Your task to perform on an android device: Go to Yahoo.com Image 0: 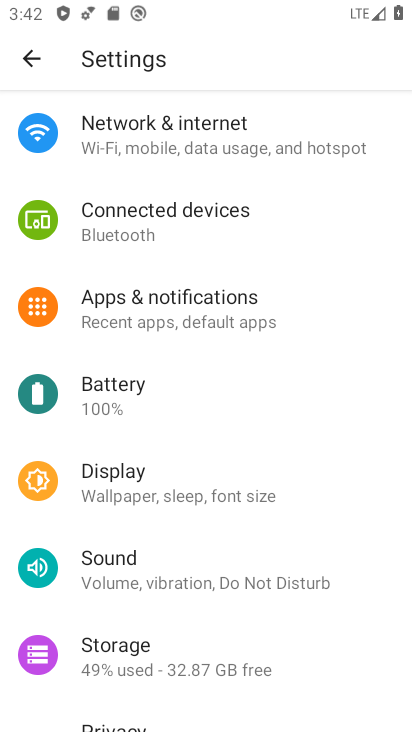
Step 0: press home button
Your task to perform on an android device: Go to Yahoo.com Image 1: 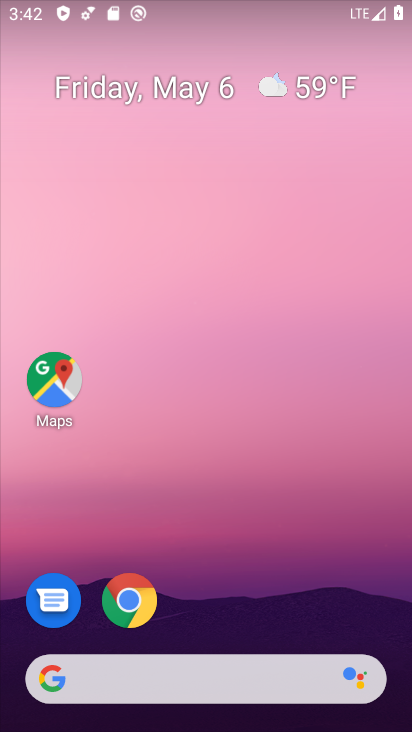
Step 1: press home button
Your task to perform on an android device: Go to Yahoo.com Image 2: 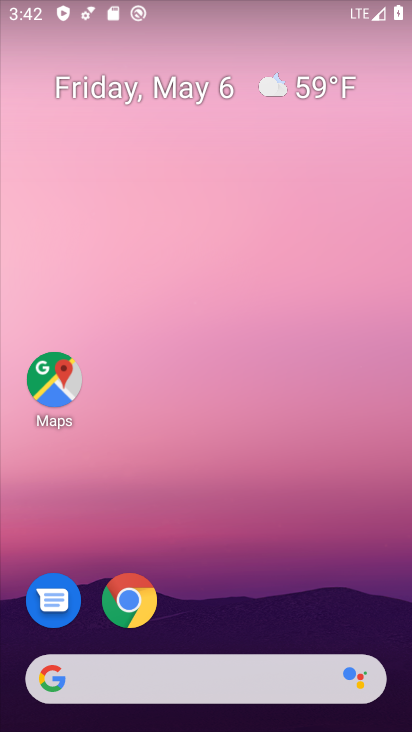
Step 2: click (146, 595)
Your task to perform on an android device: Go to Yahoo.com Image 3: 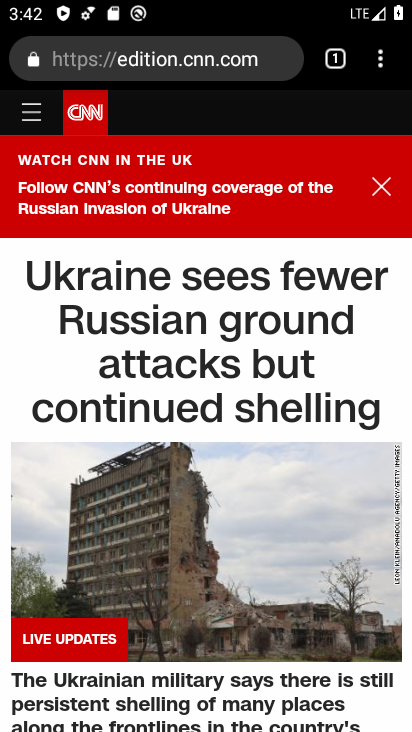
Step 3: click (385, 57)
Your task to perform on an android device: Go to Yahoo.com Image 4: 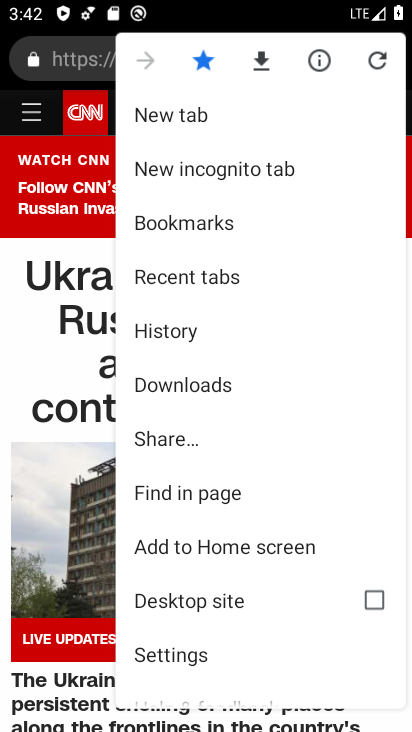
Step 4: click (172, 116)
Your task to perform on an android device: Go to Yahoo.com Image 5: 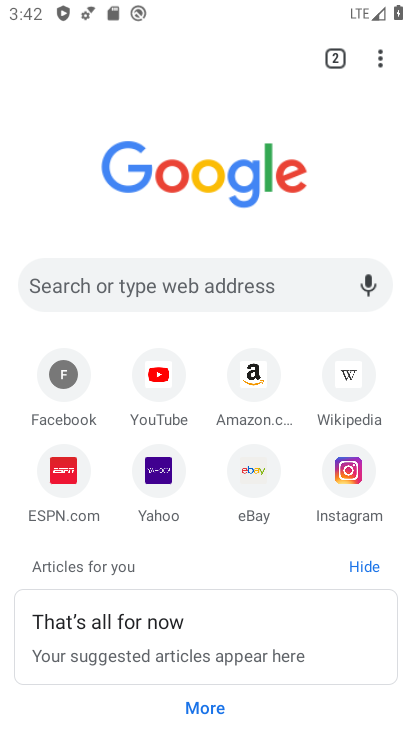
Step 5: click (144, 469)
Your task to perform on an android device: Go to Yahoo.com Image 6: 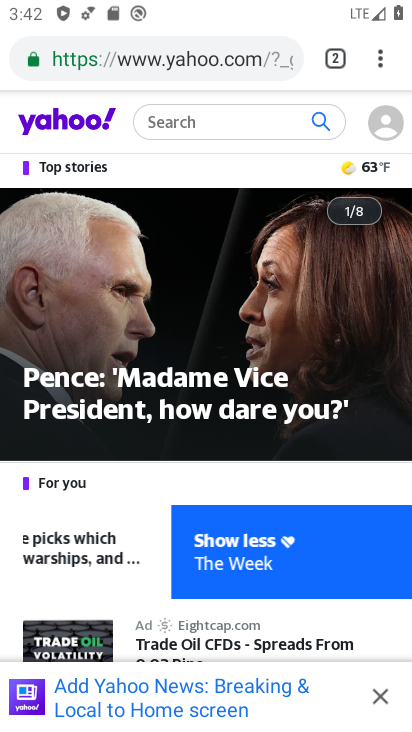
Step 6: task complete